Your task to perform on an android device: Search for sushi restaurants on Maps Image 0: 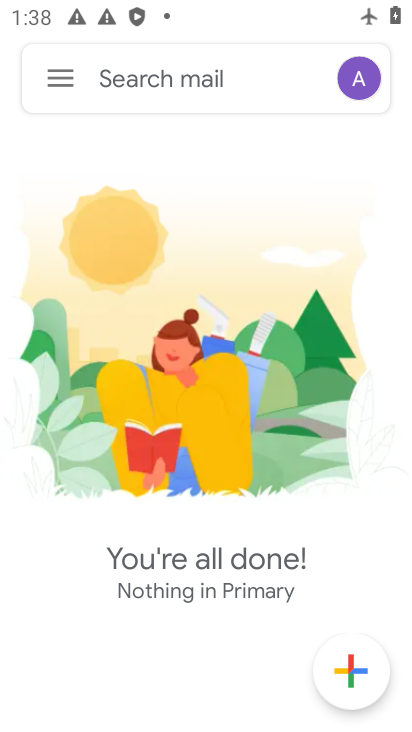
Step 0: press home button
Your task to perform on an android device: Search for sushi restaurants on Maps Image 1: 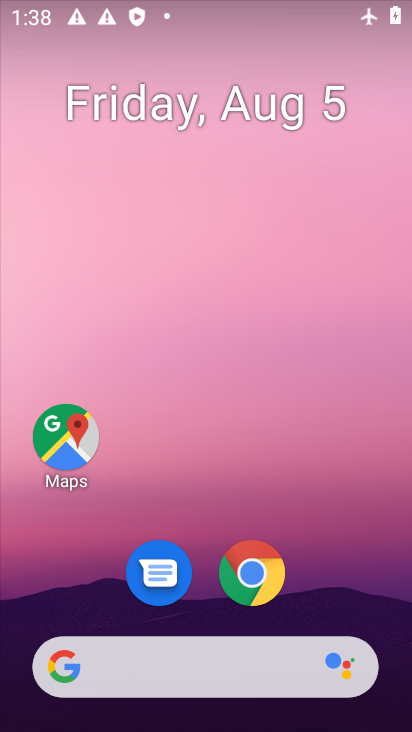
Step 1: drag from (374, 600) to (367, 259)
Your task to perform on an android device: Search for sushi restaurants on Maps Image 2: 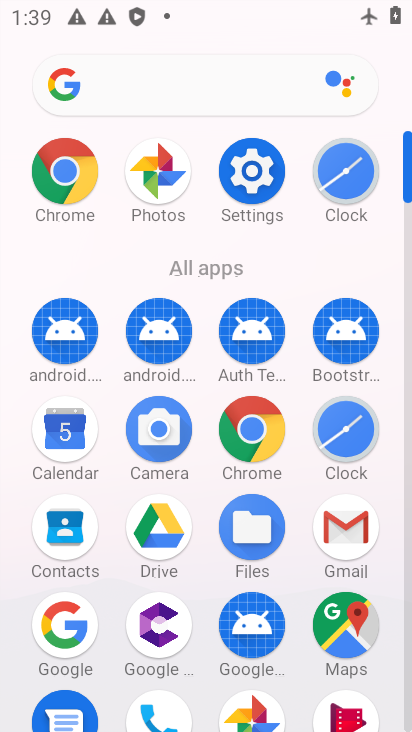
Step 2: click (341, 634)
Your task to perform on an android device: Search for sushi restaurants on Maps Image 3: 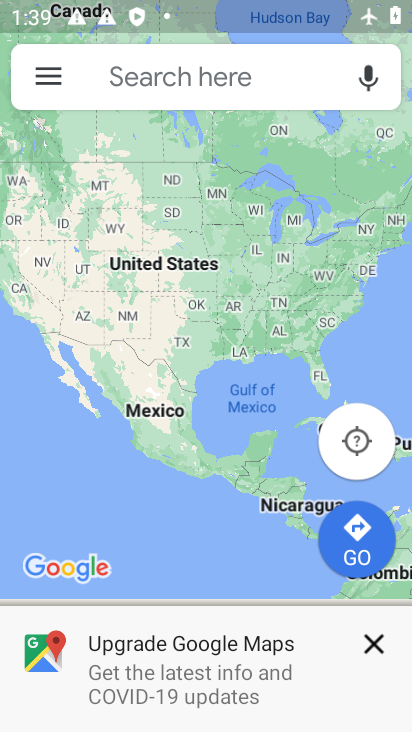
Step 3: click (238, 77)
Your task to perform on an android device: Search for sushi restaurants on Maps Image 4: 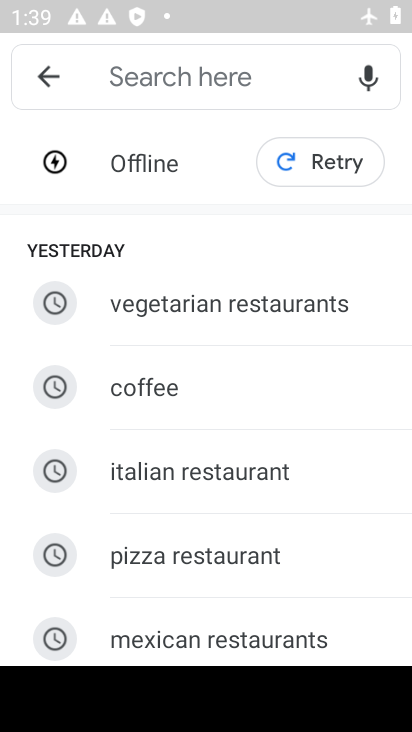
Step 4: type "sushi restaurants"
Your task to perform on an android device: Search for sushi restaurants on Maps Image 5: 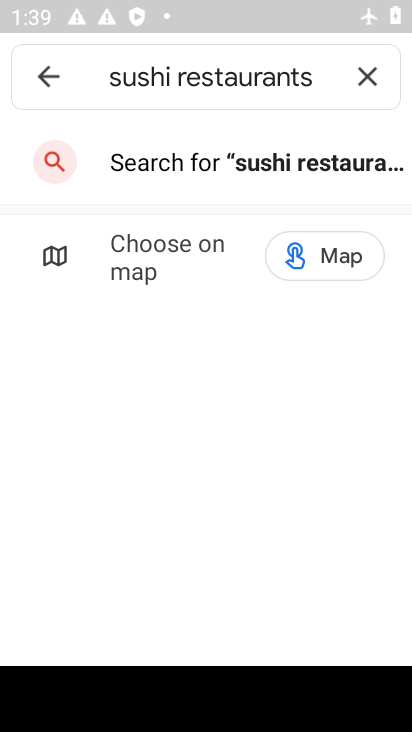
Step 5: task complete